Your task to perform on an android device: set the timer Image 0: 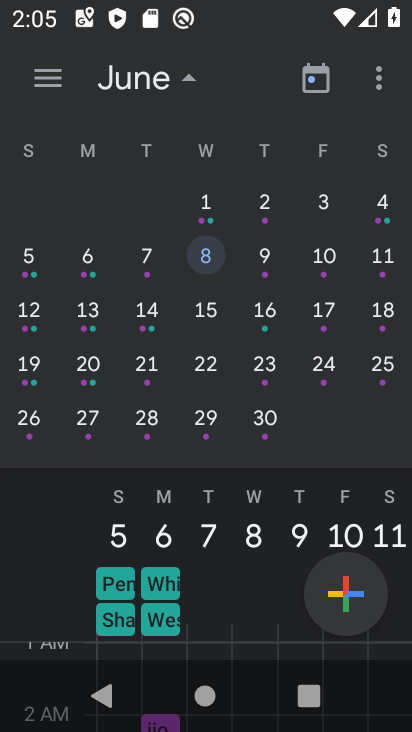
Step 0: press home button
Your task to perform on an android device: set the timer Image 1: 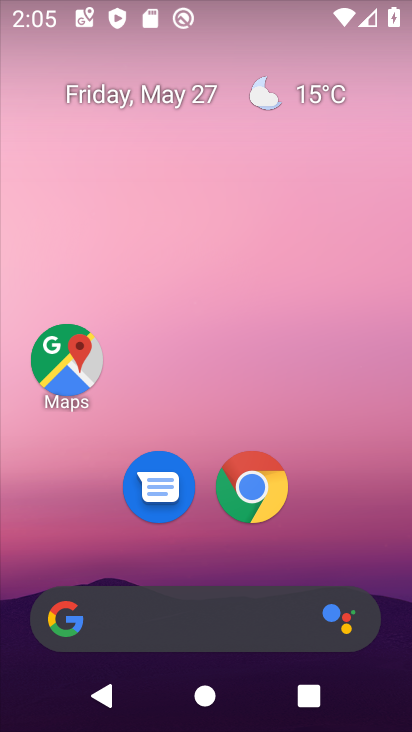
Step 1: drag from (198, 539) to (245, 3)
Your task to perform on an android device: set the timer Image 2: 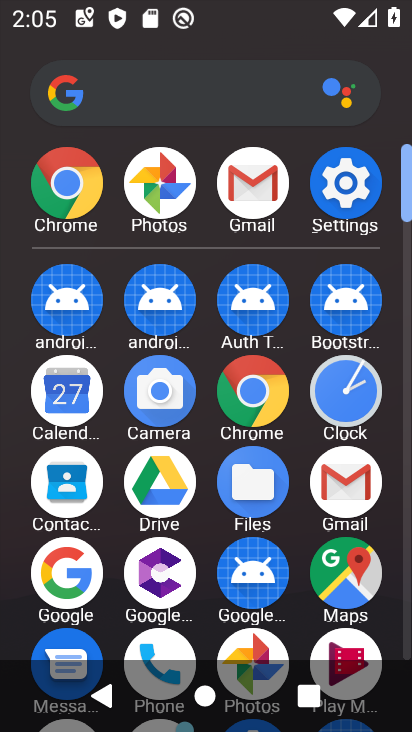
Step 2: drag from (206, 582) to (264, 168)
Your task to perform on an android device: set the timer Image 3: 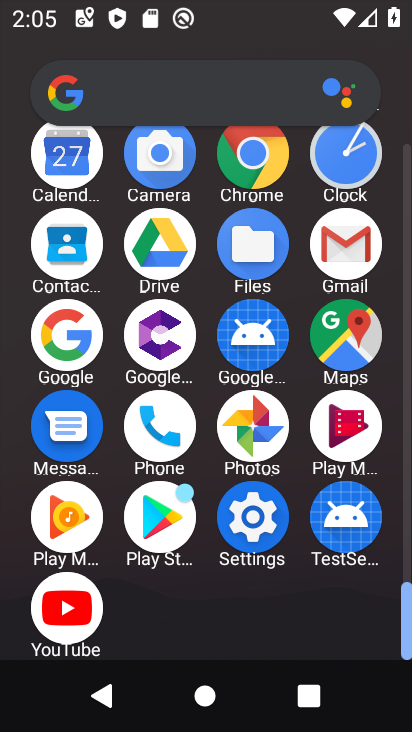
Step 3: click (365, 156)
Your task to perform on an android device: set the timer Image 4: 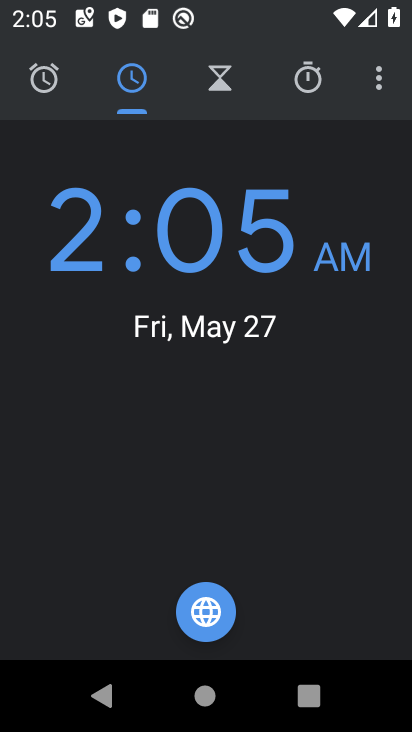
Step 4: click (232, 78)
Your task to perform on an android device: set the timer Image 5: 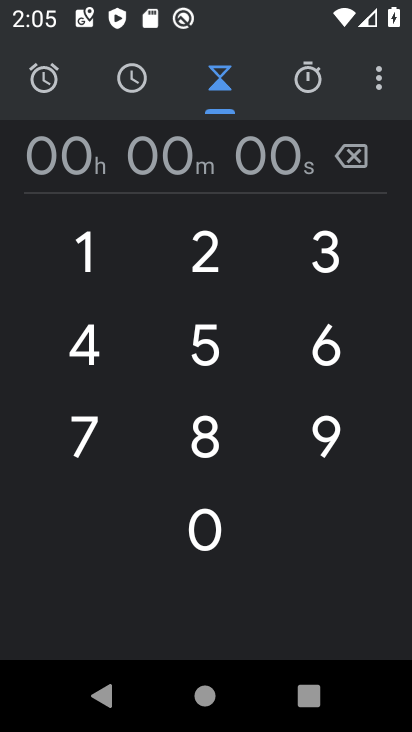
Step 5: click (318, 421)
Your task to perform on an android device: set the timer Image 6: 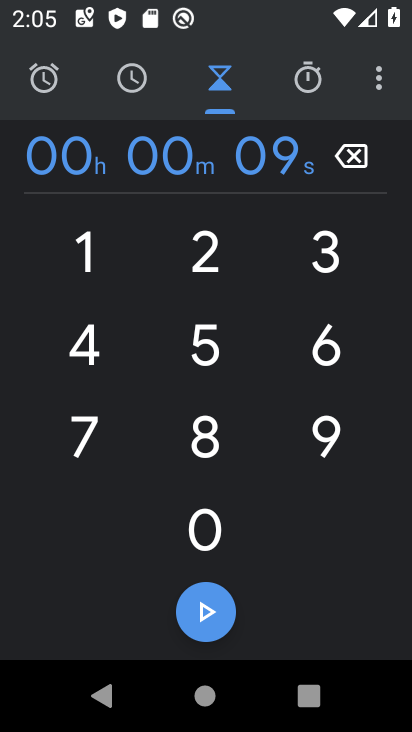
Step 6: click (208, 601)
Your task to perform on an android device: set the timer Image 7: 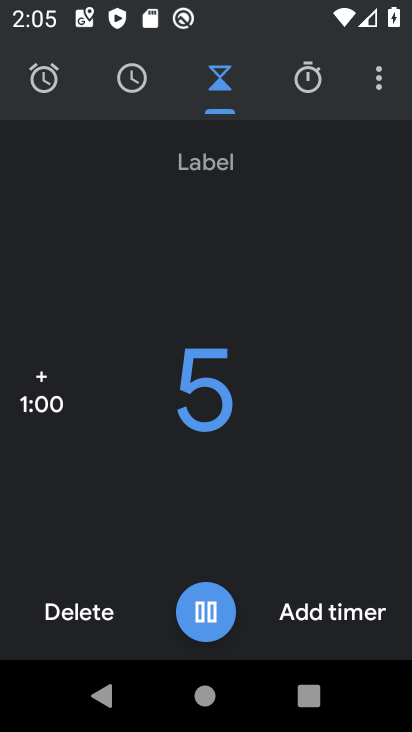
Step 7: task complete